Your task to perform on an android device: toggle wifi Image 0: 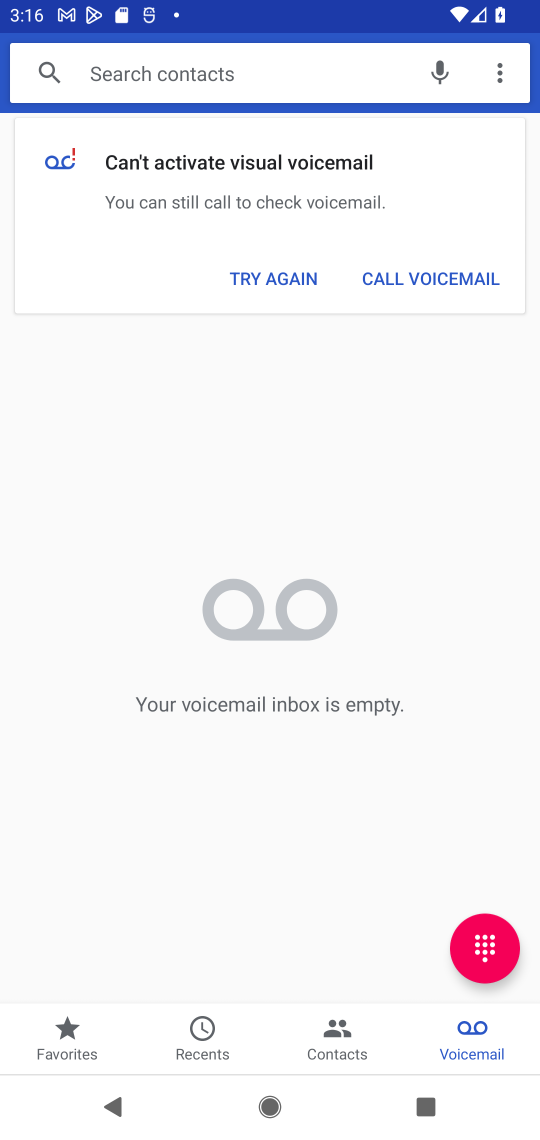
Step 0: press home button
Your task to perform on an android device: toggle wifi Image 1: 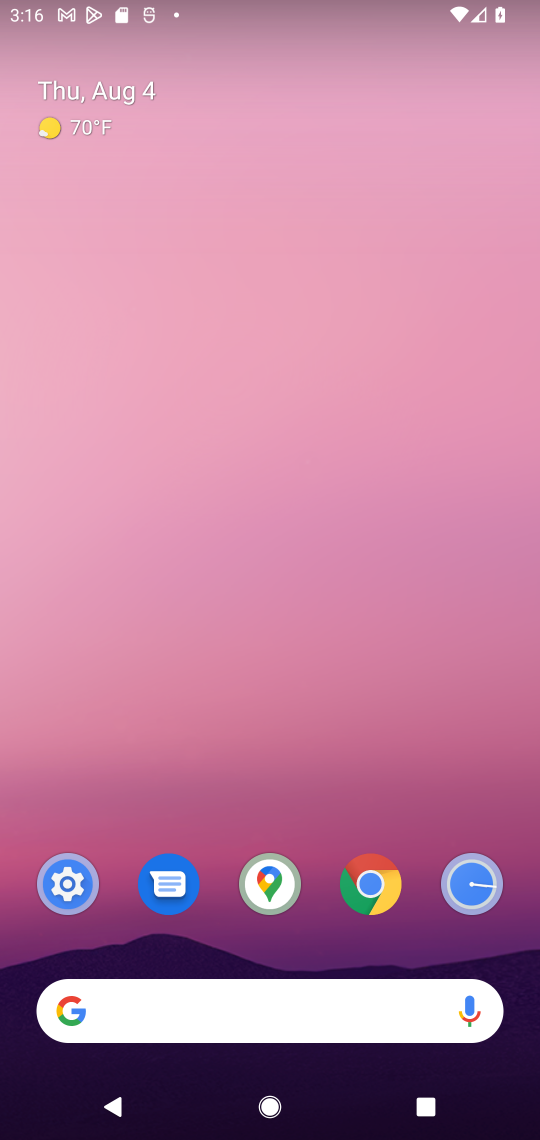
Step 1: click (88, 885)
Your task to perform on an android device: toggle wifi Image 2: 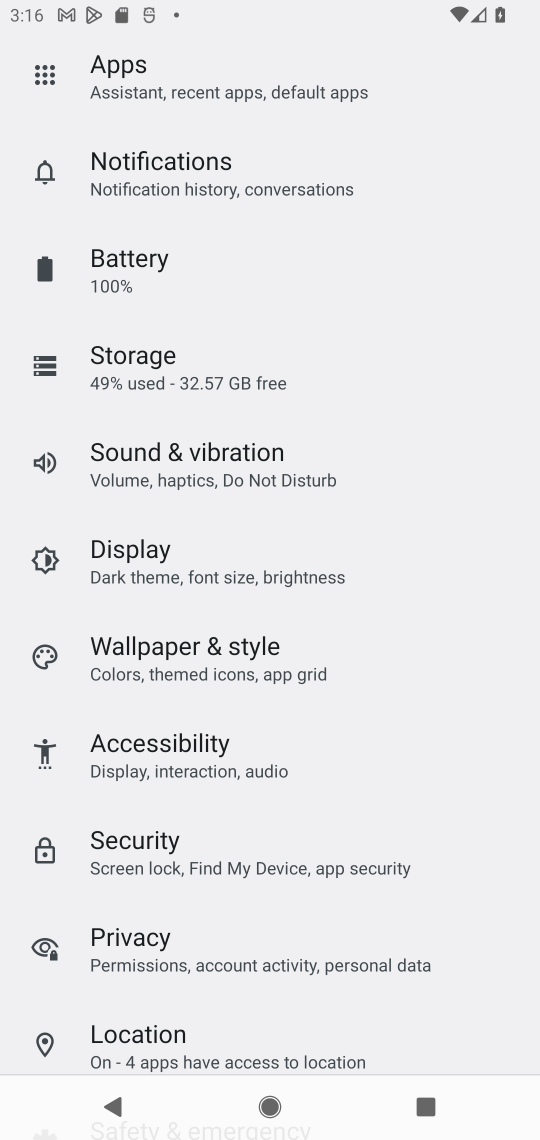
Step 2: drag from (296, 272) to (427, 1136)
Your task to perform on an android device: toggle wifi Image 3: 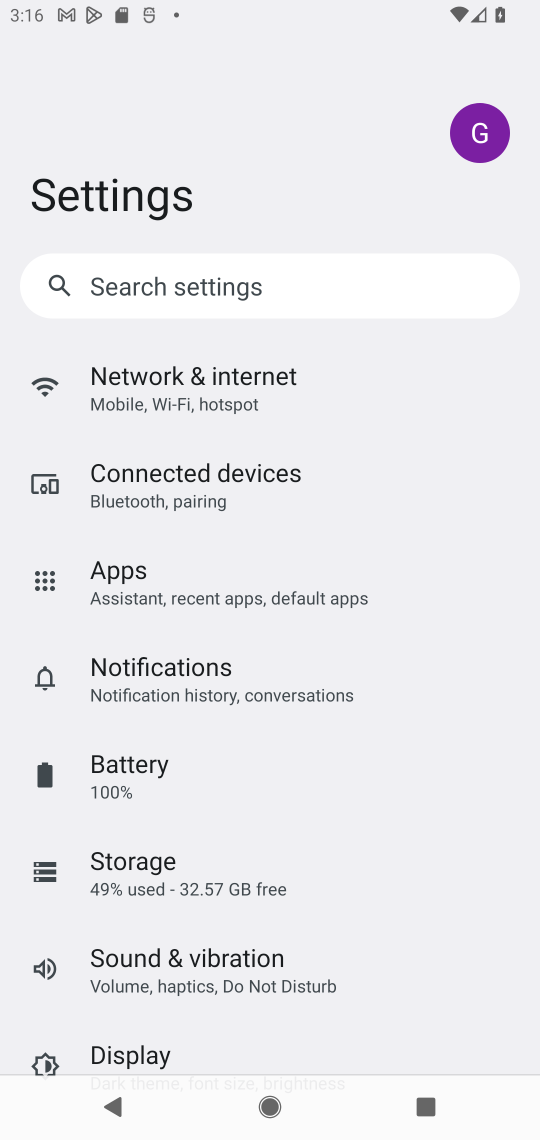
Step 3: click (273, 384)
Your task to perform on an android device: toggle wifi Image 4: 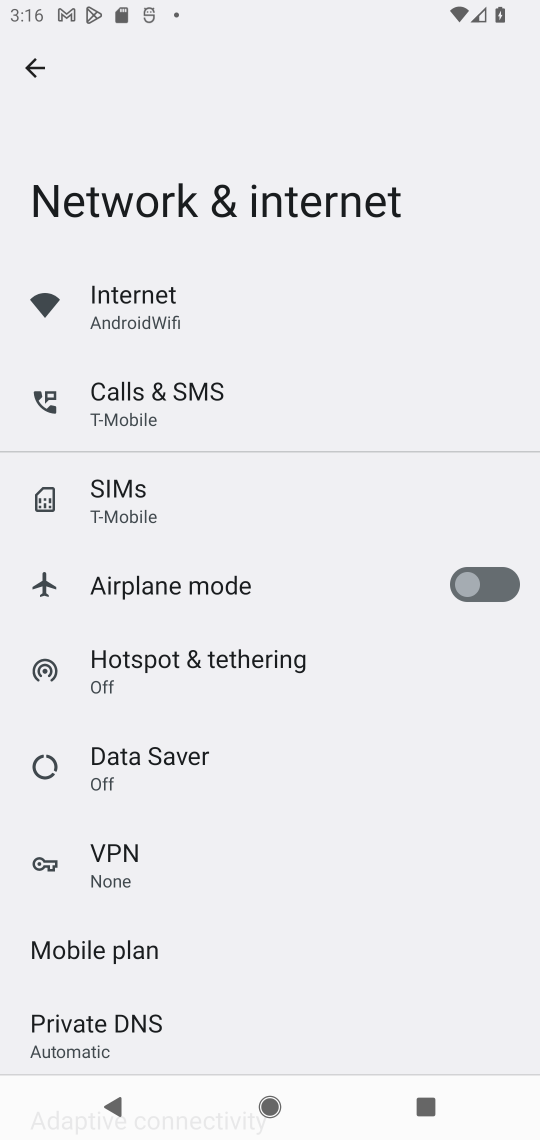
Step 4: task complete